Your task to perform on an android device: Go to Maps Image 0: 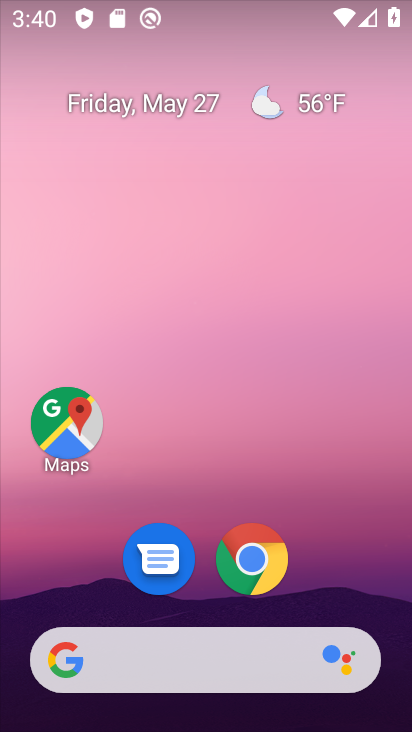
Step 0: click (64, 432)
Your task to perform on an android device: Go to Maps Image 1: 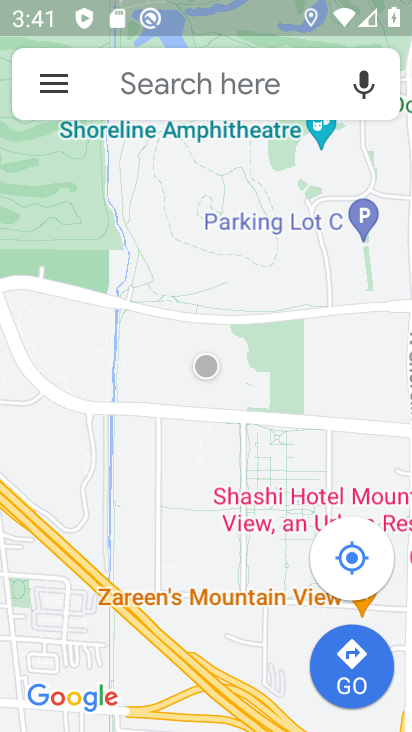
Step 1: task complete